Your task to perform on an android device: open chrome privacy settings Image 0: 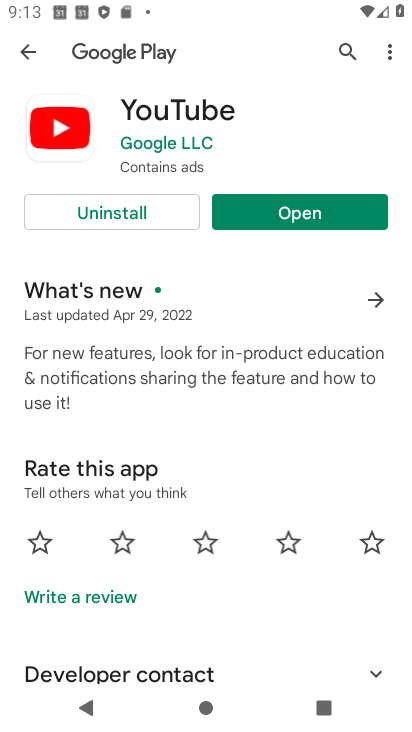
Step 0: click (242, 193)
Your task to perform on an android device: open chrome privacy settings Image 1: 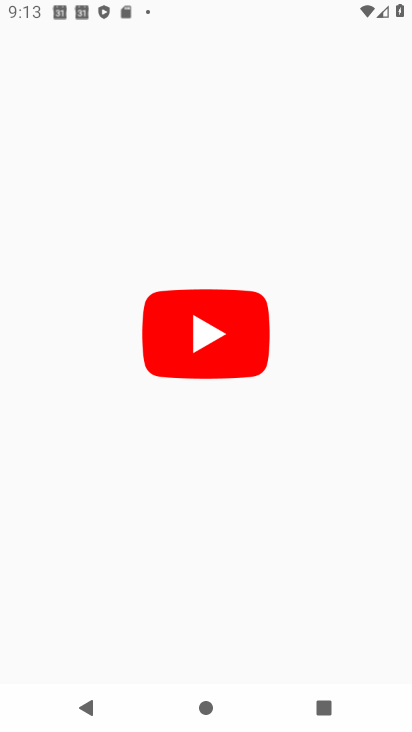
Step 1: press home button
Your task to perform on an android device: open chrome privacy settings Image 2: 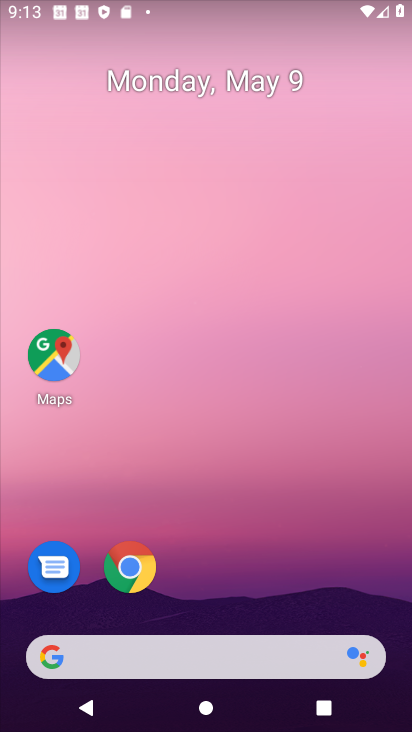
Step 2: drag from (202, 614) to (240, 355)
Your task to perform on an android device: open chrome privacy settings Image 3: 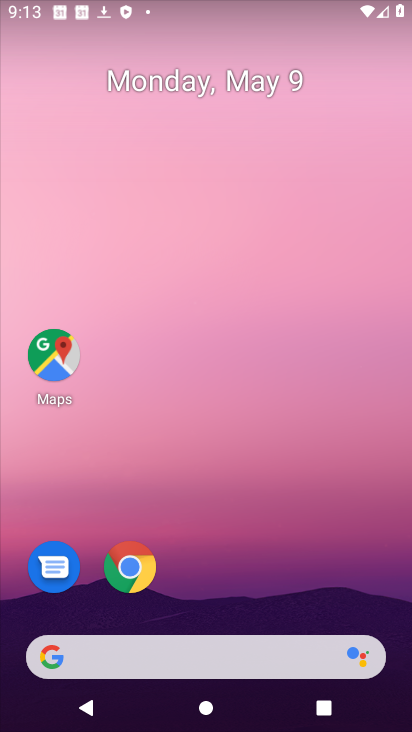
Step 3: click (123, 563)
Your task to perform on an android device: open chrome privacy settings Image 4: 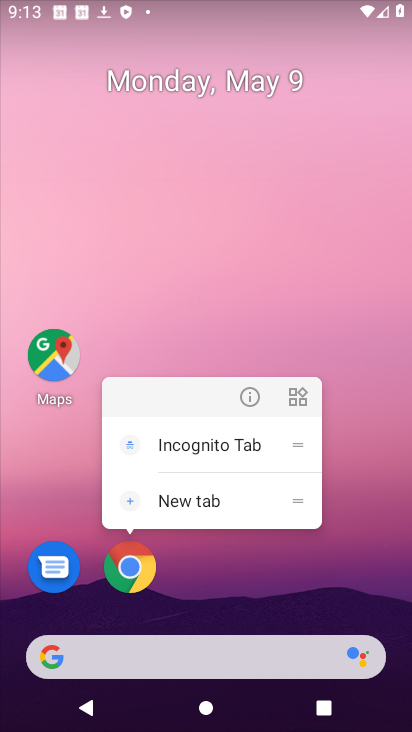
Step 4: click (247, 390)
Your task to perform on an android device: open chrome privacy settings Image 5: 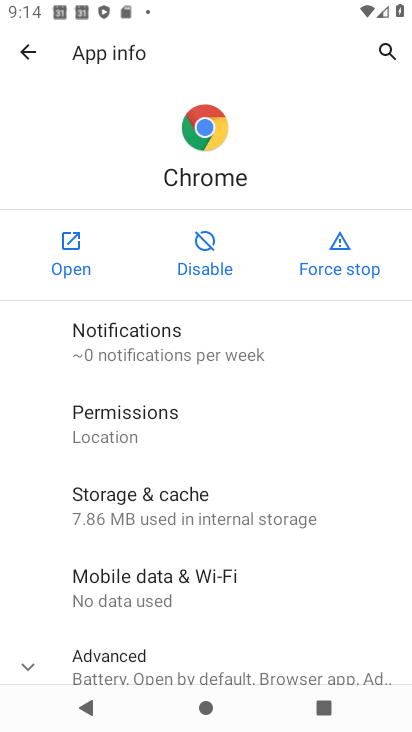
Step 5: click (67, 255)
Your task to perform on an android device: open chrome privacy settings Image 6: 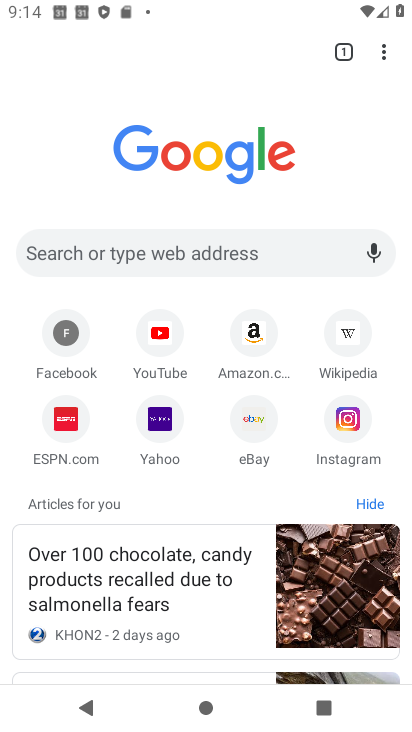
Step 6: drag from (390, 48) to (268, 442)
Your task to perform on an android device: open chrome privacy settings Image 7: 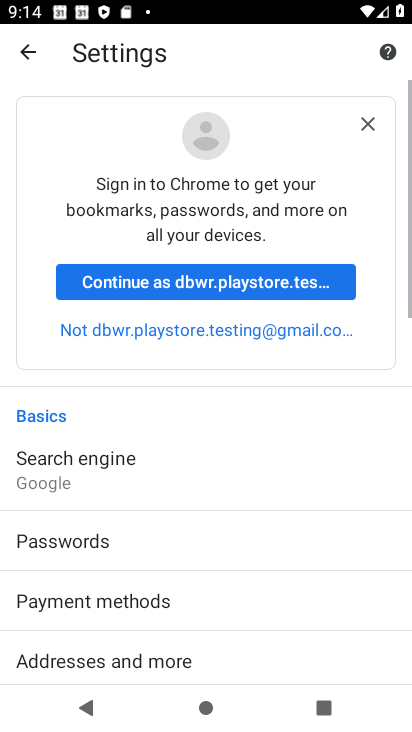
Step 7: drag from (202, 627) to (275, 166)
Your task to perform on an android device: open chrome privacy settings Image 8: 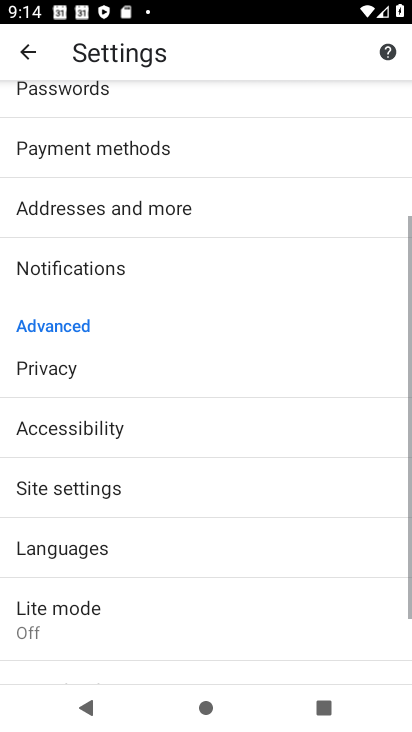
Step 8: drag from (231, 606) to (297, 195)
Your task to perform on an android device: open chrome privacy settings Image 9: 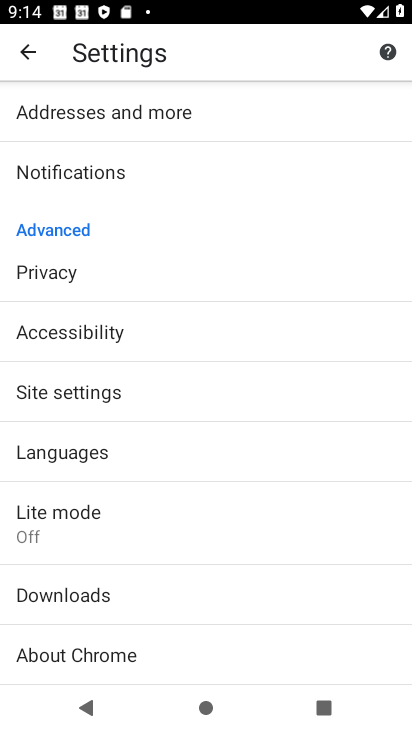
Step 9: click (148, 261)
Your task to perform on an android device: open chrome privacy settings Image 10: 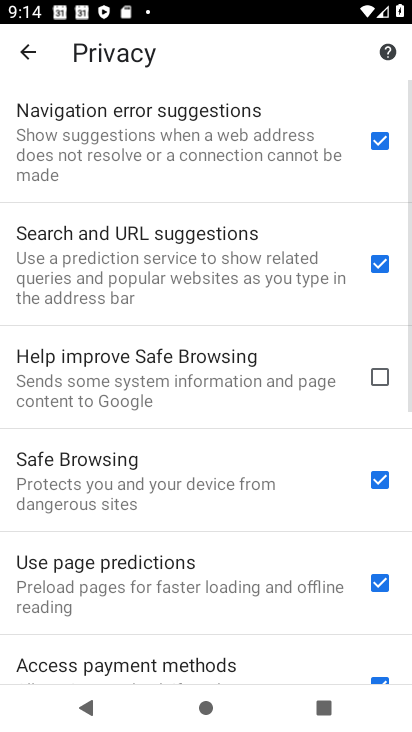
Step 10: task complete